Your task to perform on an android device: delete browsing data in the chrome app Image 0: 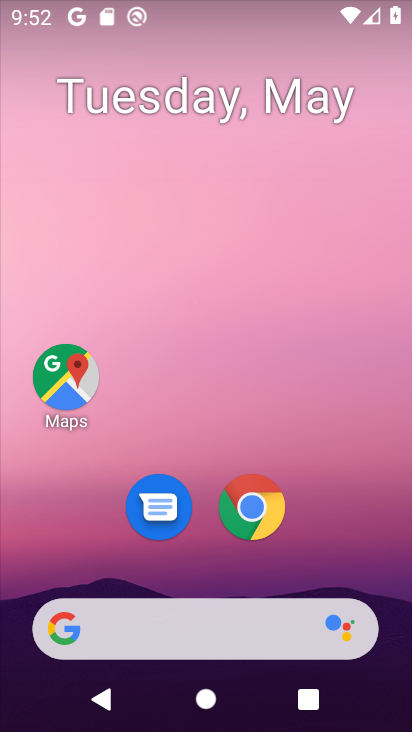
Step 0: click (252, 502)
Your task to perform on an android device: delete browsing data in the chrome app Image 1: 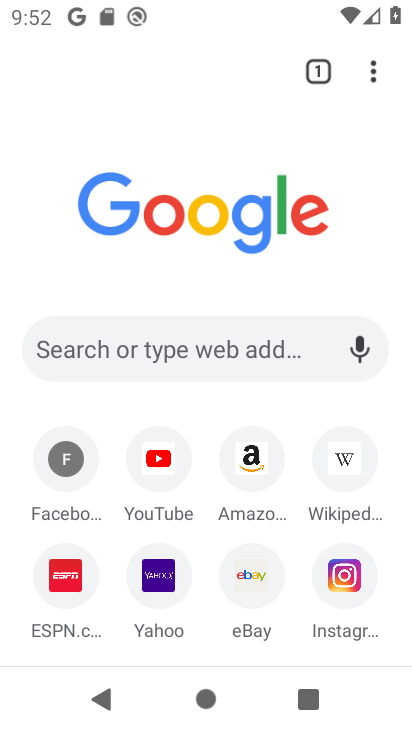
Step 1: click (371, 67)
Your task to perform on an android device: delete browsing data in the chrome app Image 2: 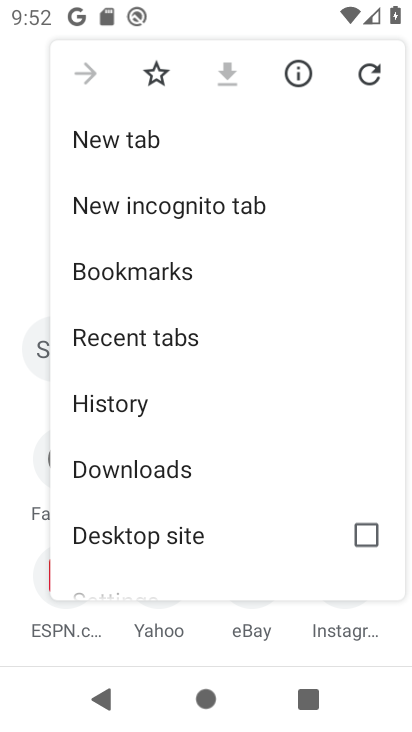
Step 2: drag from (190, 561) to (162, 377)
Your task to perform on an android device: delete browsing data in the chrome app Image 3: 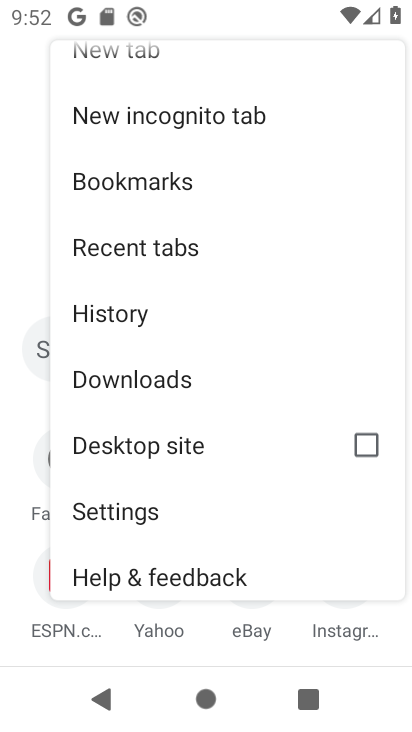
Step 3: click (139, 323)
Your task to perform on an android device: delete browsing data in the chrome app Image 4: 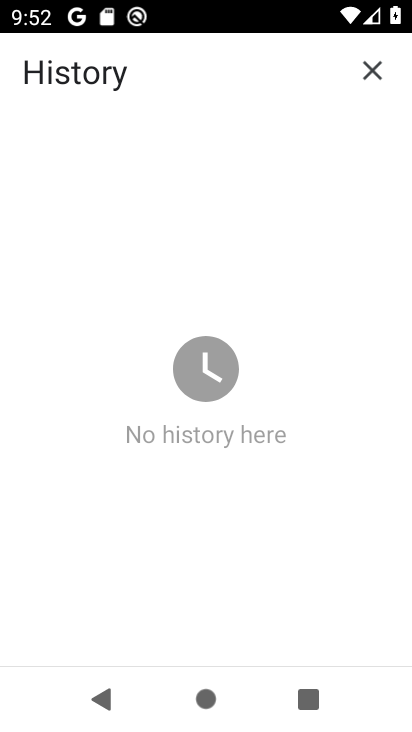
Step 4: task complete